Your task to perform on an android device: turn off notifications settings in the gmail app Image 0: 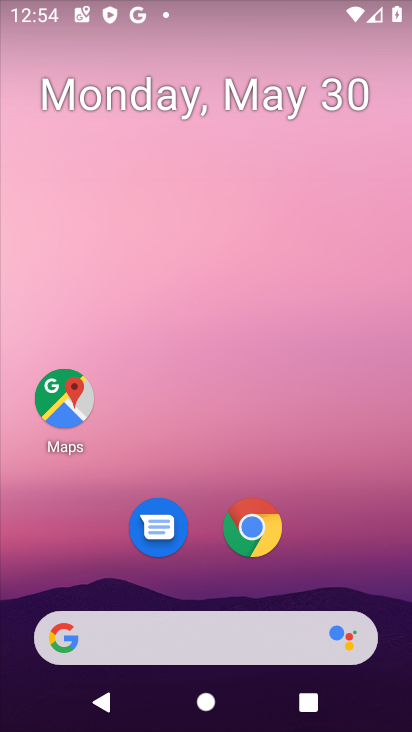
Step 0: drag from (374, 563) to (251, 132)
Your task to perform on an android device: turn off notifications settings in the gmail app Image 1: 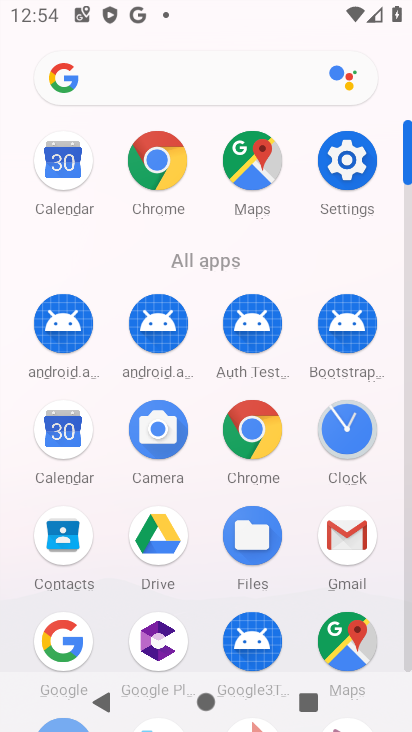
Step 1: click (338, 546)
Your task to perform on an android device: turn off notifications settings in the gmail app Image 2: 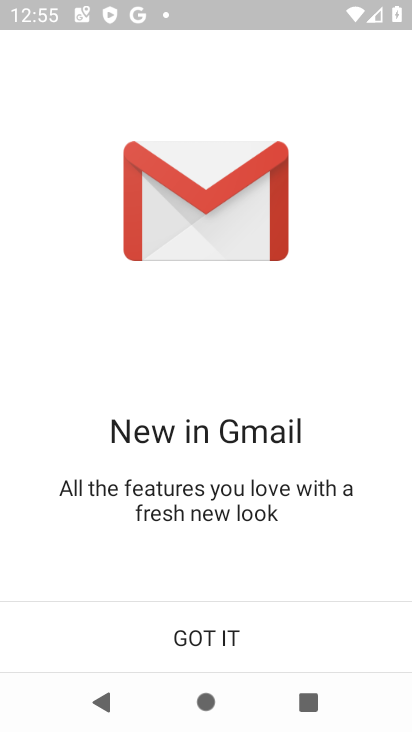
Step 2: click (225, 635)
Your task to perform on an android device: turn off notifications settings in the gmail app Image 3: 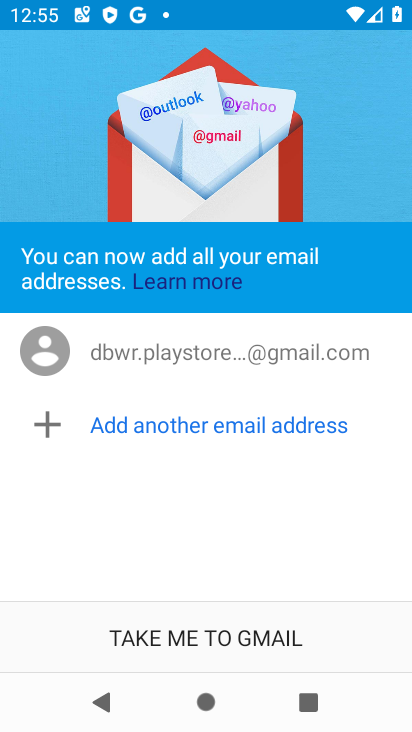
Step 3: click (221, 634)
Your task to perform on an android device: turn off notifications settings in the gmail app Image 4: 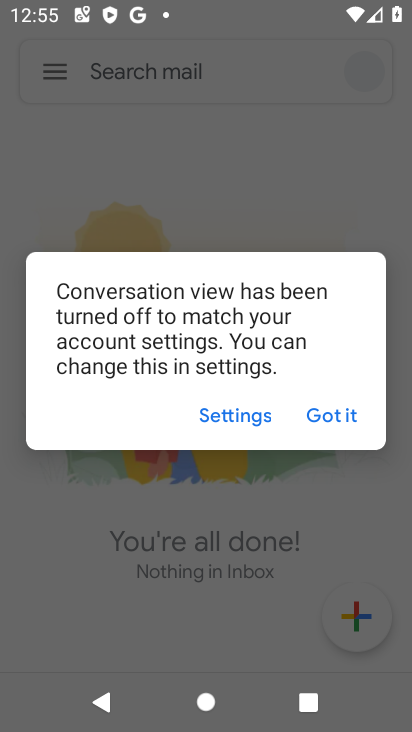
Step 4: click (334, 416)
Your task to perform on an android device: turn off notifications settings in the gmail app Image 5: 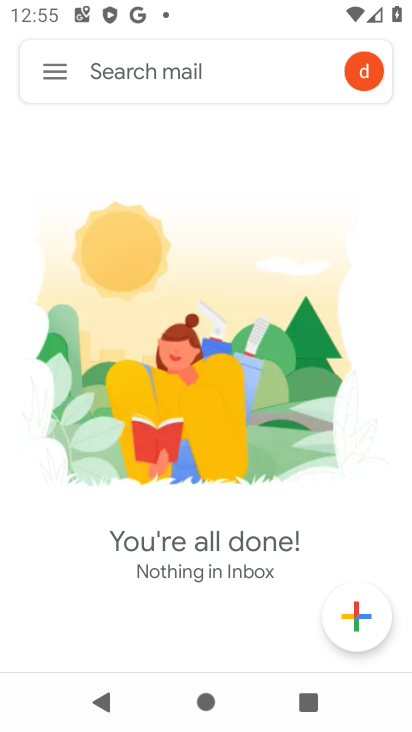
Step 5: click (45, 71)
Your task to perform on an android device: turn off notifications settings in the gmail app Image 6: 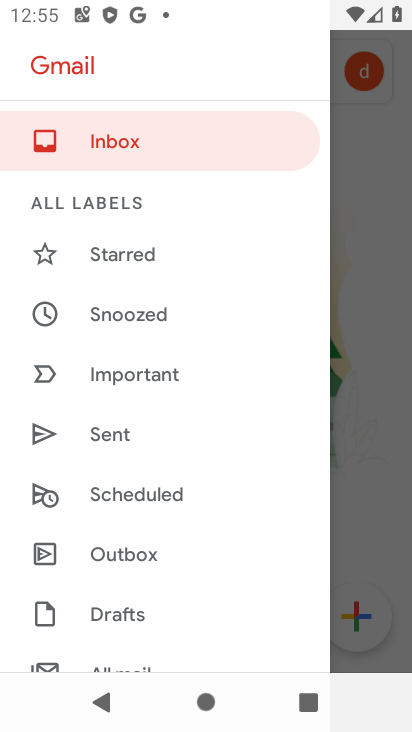
Step 6: drag from (201, 646) to (157, 275)
Your task to perform on an android device: turn off notifications settings in the gmail app Image 7: 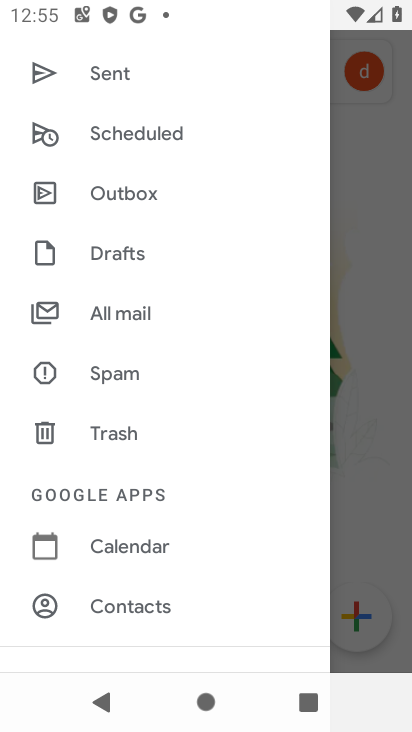
Step 7: drag from (195, 585) to (149, 195)
Your task to perform on an android device: turn off notifications settings in the gmail app Image 8: 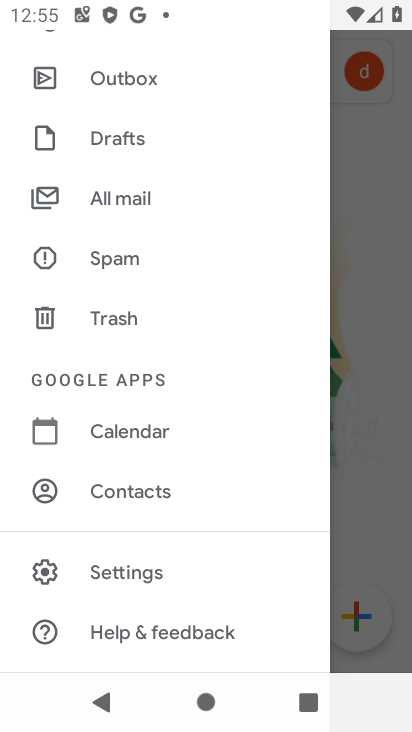
Step 8: click (143, 592)
Your task to perform on an android device: turn off notifications settings in the gmail app Image 9: 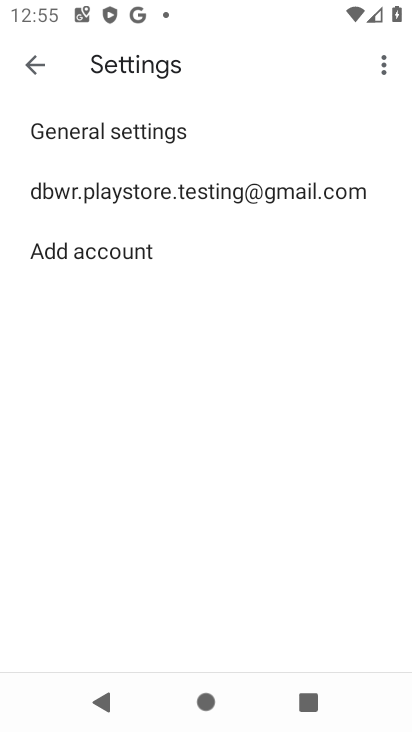
Step 9: click (191, 185)
Your task to perform on an android device: turn off notifications settings in the gmail app Image 10: 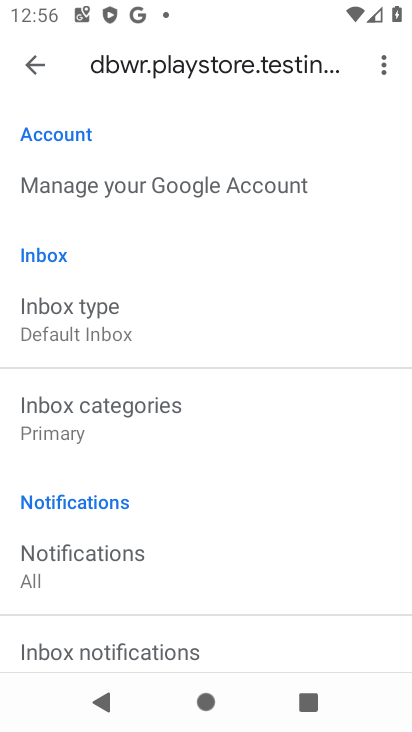
Step 10: drag from (230, 571) to (129, 138)
Your task to perform on an android device: turn off notifications settings in the gmail app Image 11: 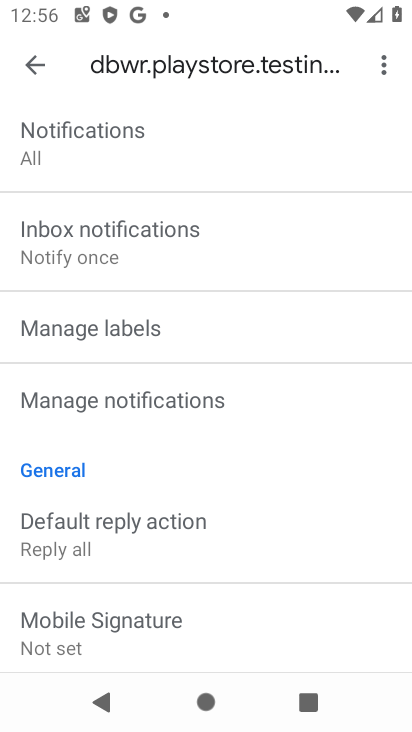
Step 11: click (159, 404)
Your task to perform on an android device: turn off notifications settings in the gmail app Image 12: 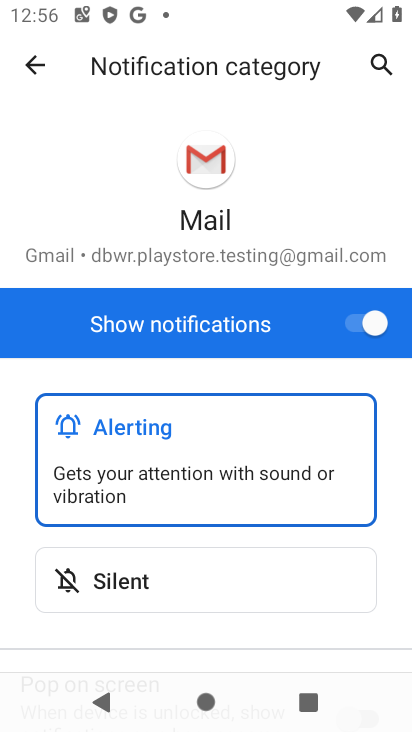
Step 12: task complete